Your task to perform on an android device: Open Youtube and go to the subscriptions tab Image 0: 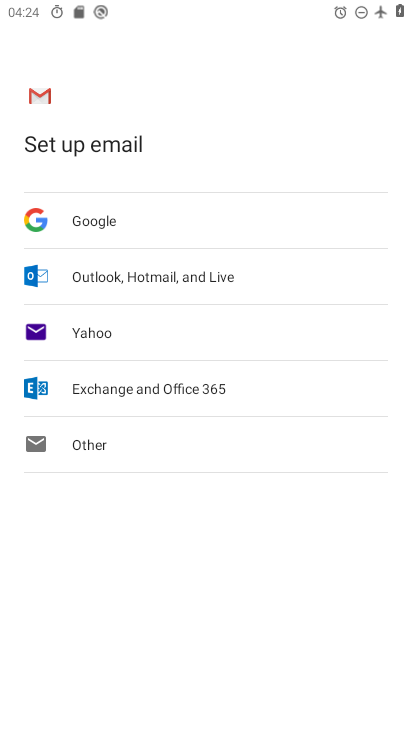
Step 0: press home button
Your task to perform on an android device: Open Youtube and go to the subscriptions tab Image 1: 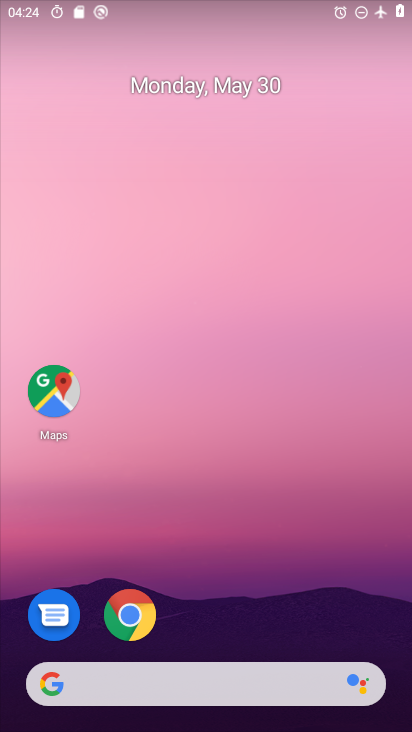
Step 1: drag from (237, 583) to (160, 65)
Your task to perform on an android device: Open Youtube and go to the subscriptions tab Image 2: 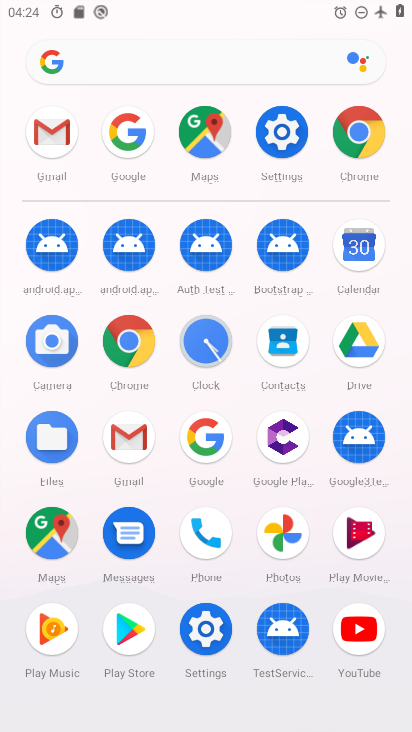
Step 2: click (361, 625)
Your task to perform on an android device: Open Youtube and go to the subscriptions tab Image 3: 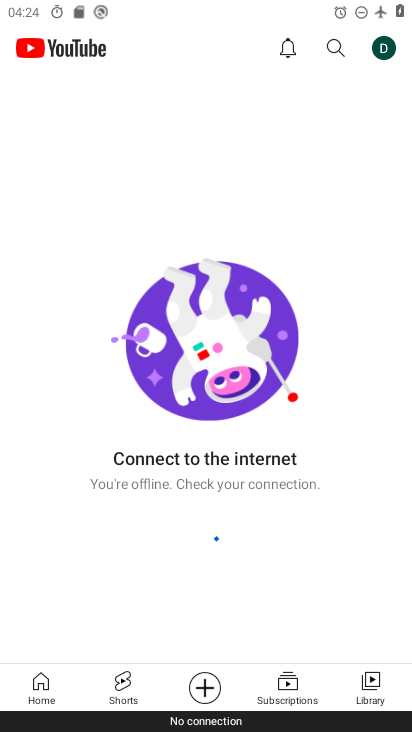
Step 3: click (290, 680)
Your task to perform on an android device: Open Youtube and go to the subscriptions tab Image 4: 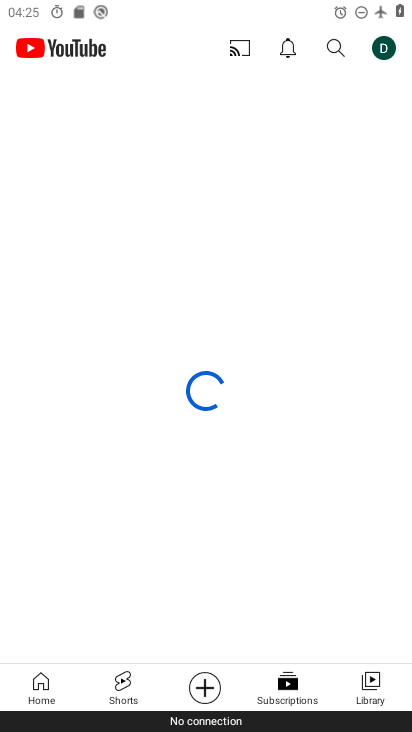
Step 4: task complete